Your task to perform on an android device: Open Yahoo.com Image 0: 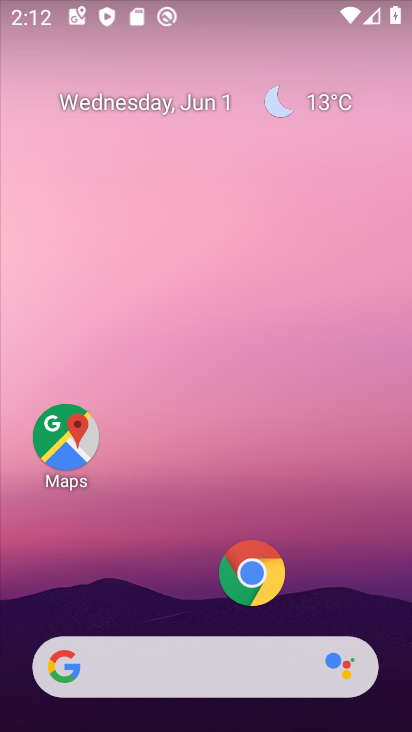
Step 0: click (233, 596)
Your task to perform on an android device: Open Yahoo.com Image 1: 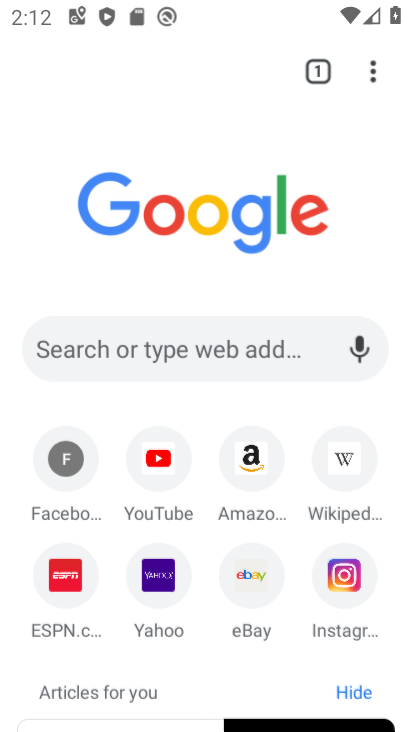
Step 1: click (167, 578)
Your task to perform on an android device: Open Yahoo.com Image 2: 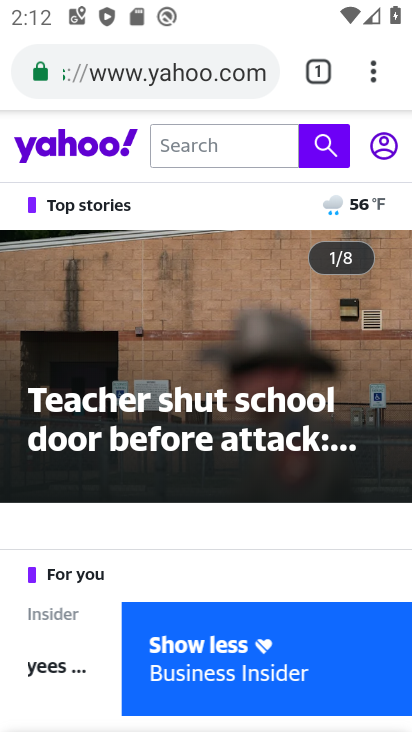
Step 2: task complete